Your task to perform on an android device: turn on translation in the chrome app Image 0: 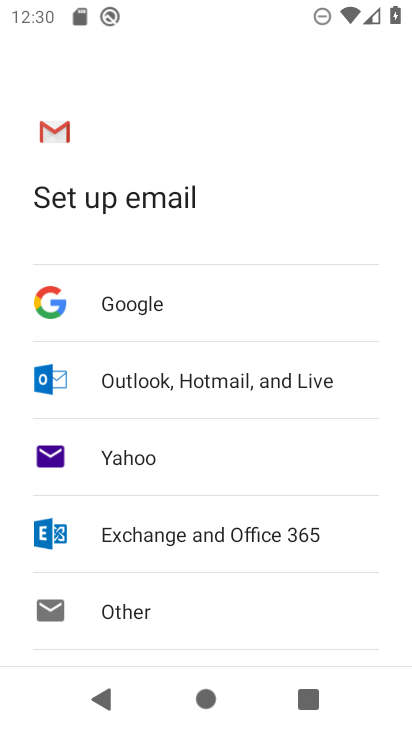
Step 0: press home button
Your task to perform on an android device: turn on translation in the chrome app Image 1: 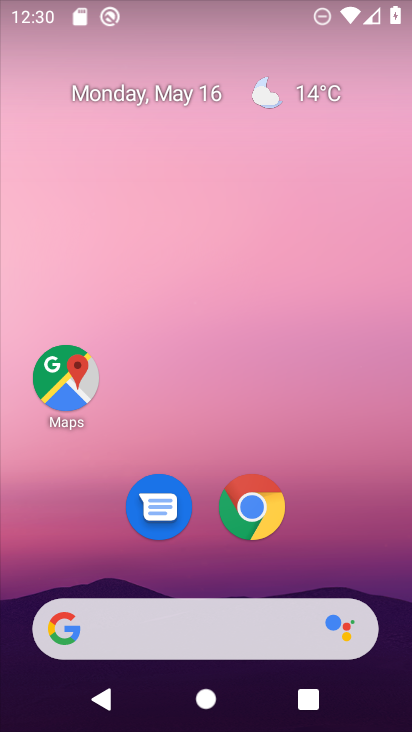
Step 1: click (278, 513)
Your task to perform on an android device: turn on translation in the chrome app Image 2: 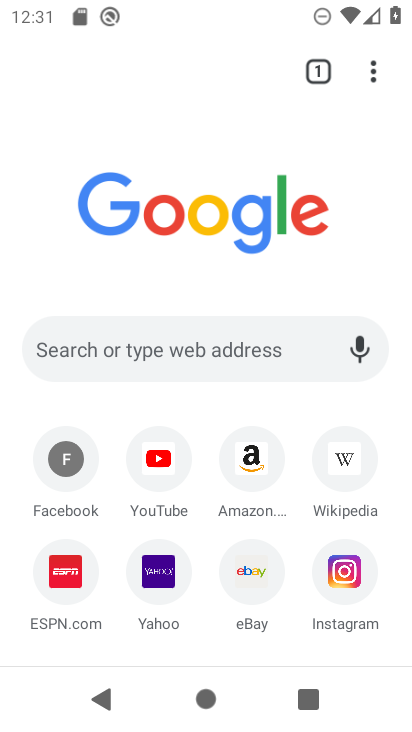
Step 2: drag from (377, 70) to (232, 515)
Your task to perform on an android device: turn on translation in the chrome app Image 3: 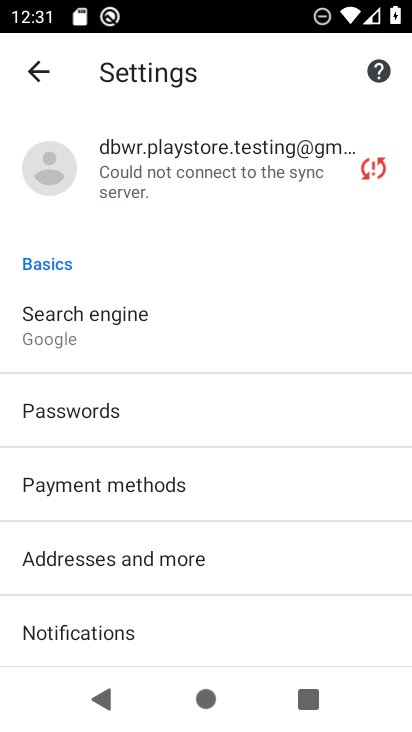
Step 3: drag from (263, 603) to (300, 198)
Your task to perform on an android device: turn on translation in the chrome app Image 4: 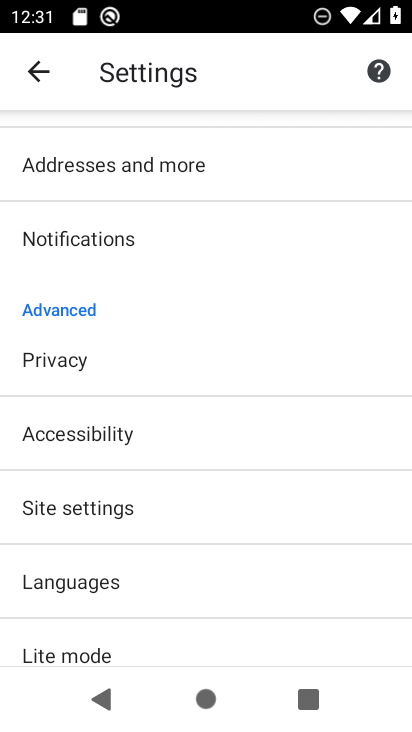
Step 4: drag from (238, 432) to (212, 267)
Your task to perform on an android device: turn on translation in the chrome app Image 5: 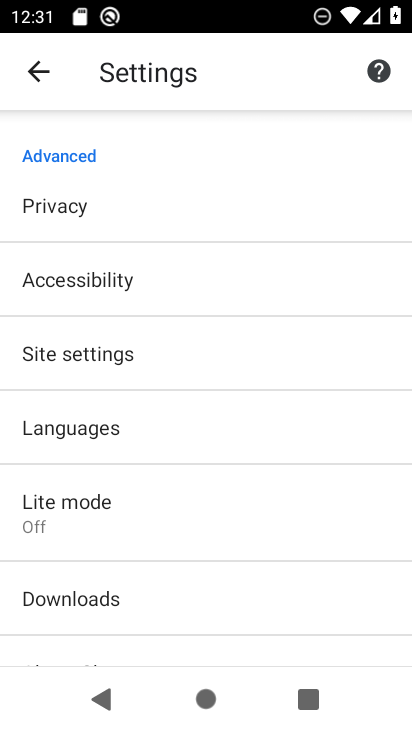
Step 5: click (116, 431)
Your task to perform on an android device: turn on translation in the chrome app Image 6: 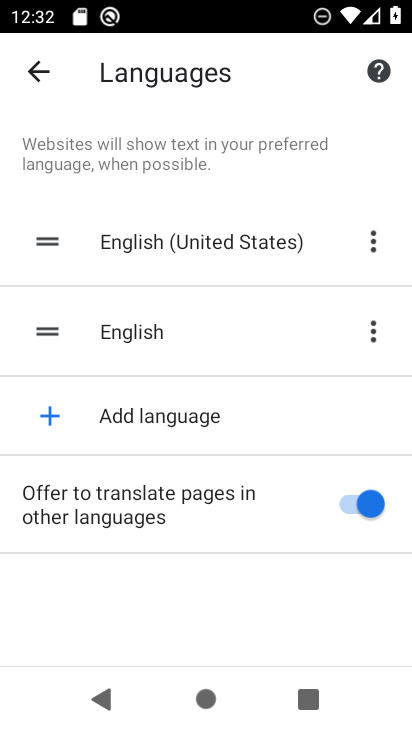
Step 6: task complete